Your task to perform on an android device: turn off wifi Image 0: 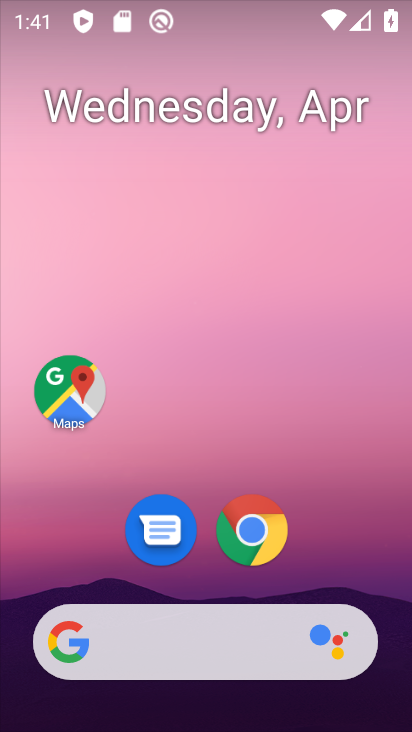
Step 0: drag from (244, 7) to (255, 426)
Your task to perform on an android device: turn off wifi Image 1: 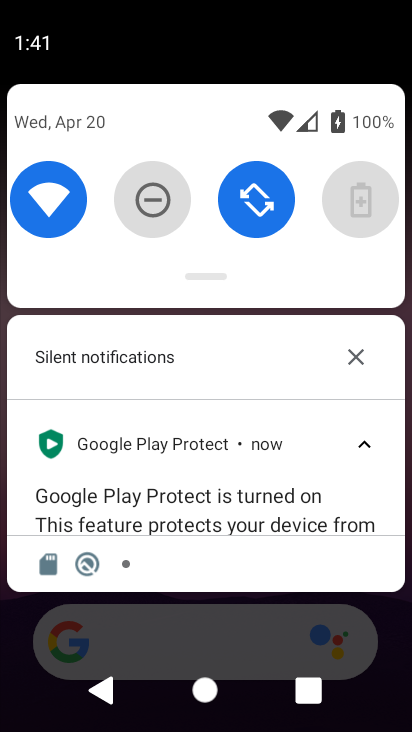
Step 1: click (57, 171)
Your task to perform on an android device: turn off wifi Image 2: 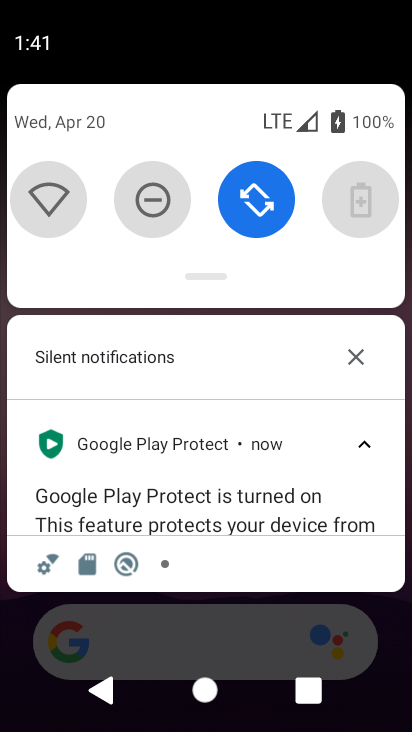
Step 2: task complete